Your task to perform on an android device: open app "Google Play Music" Image 0: 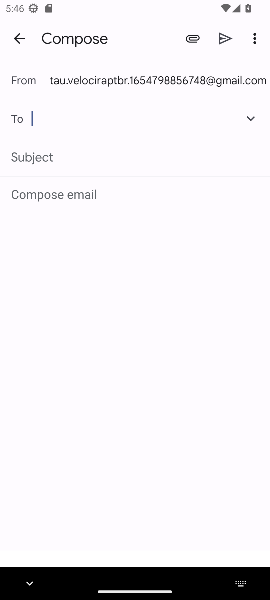
Step 0: press home button
Your task to perform on an android device: open app "Google Play Music" Image 1: 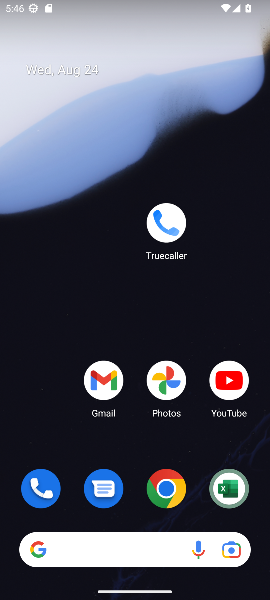
Step 1: drag from (126, 519) to (126, 12)
Your task to perform on an android device: open app "Google Play Music" Image 2: 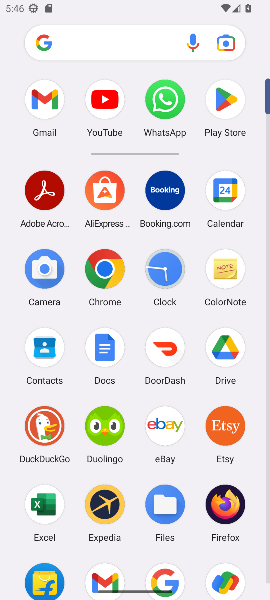
Step 2: click (226, 117)
Your task to perform on an android device: open app "Google Play Music" Image 3: 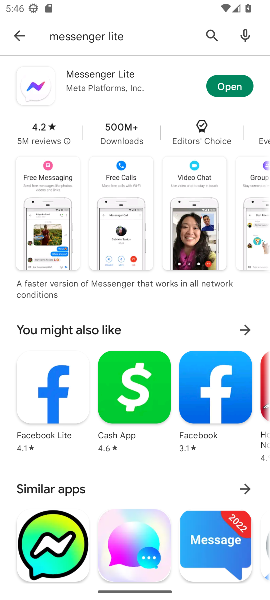
Step 3: click (201, 33)
Your task to perform on an android device: open app "Google Play Music" Image 4: 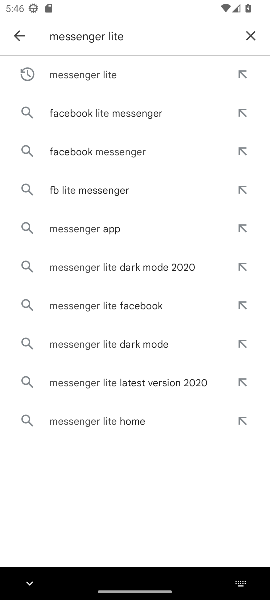
Step 4: click (242, 35)
Your task to perform on an android device: open app "Google Play Music" Image 5: 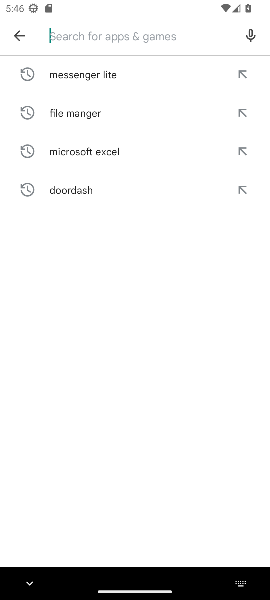
Step 5: type "google pay"
Your task to perform on an android device: open app "Google Play Music" Image 6: 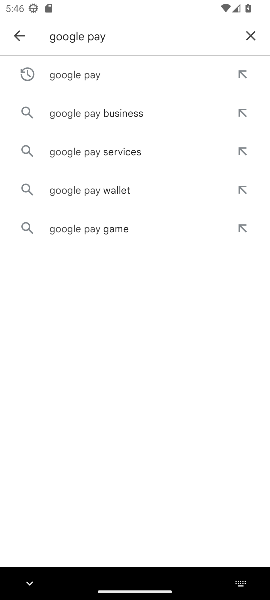
Step 6: click (115, 77)
Your task to perform on an android device: open app "Google Play Music" Image 7: 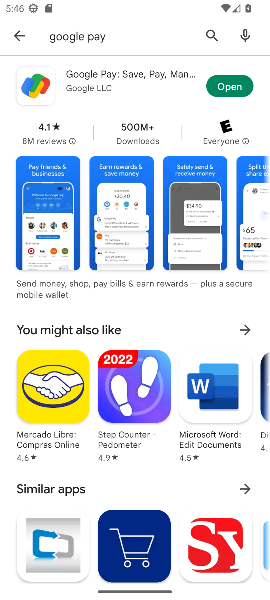
Step 7: click (212, 32)
Your task to perform on an android device: open app "Google Play Music" Image 8: 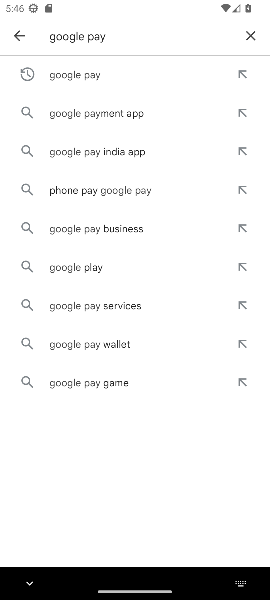
Step 8: click (247, 32)
Your task to perform on an android device: open app "Google Play Music" Image 9: 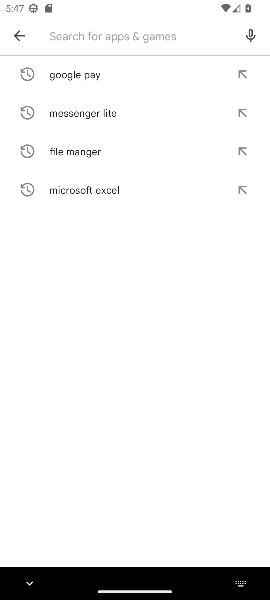
Step 9: type "google play"
Your task to perform on an android device: open app "Google Play Music" Image 10: 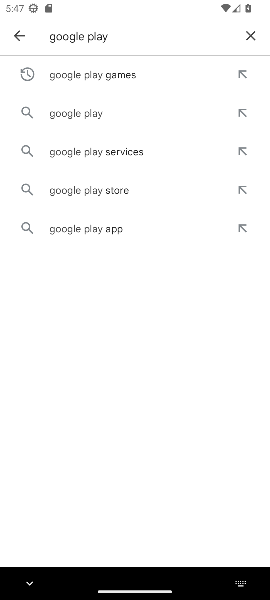
Step 10: click (108, 110)
Your task to perform on an android device: open app "Google Play Music" Image 11: 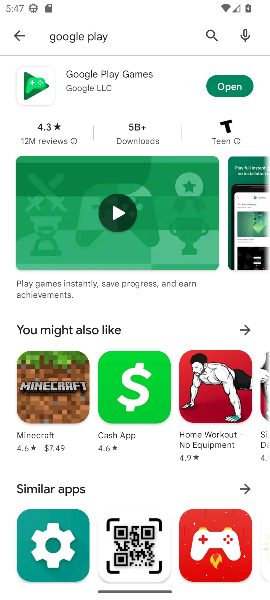
Step 11: click (223, 79)
Your task to perform on an android device: open app "Google Play Music" Image 12: 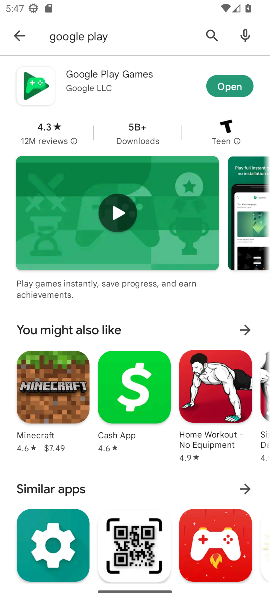
Step 12: task complete